Your task to perform on an android device: Open Yahoo.com Image 0: 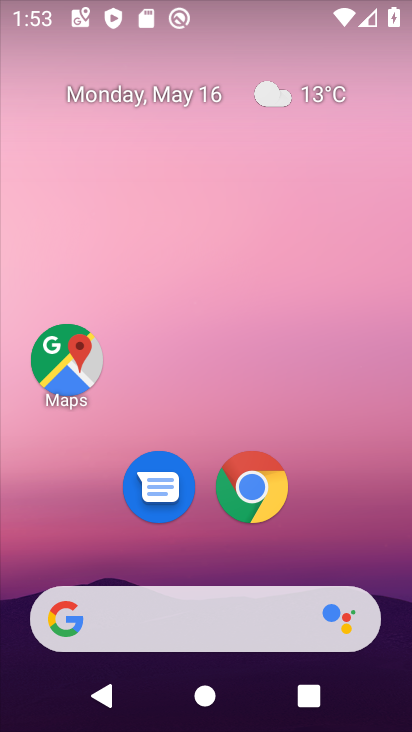
Step 0: drag from (311, 453) to (287, 19)
Your task to perform on an android device: Open Yahoo.com Image 1: 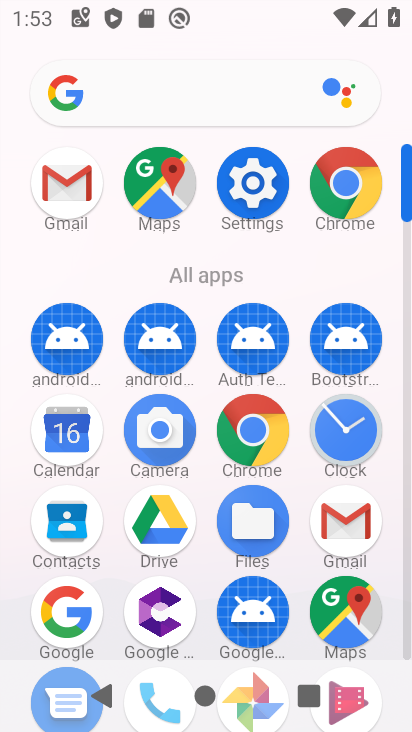
Step 1: click (250, 421)
Your task to perform on an android device: Open Yahoo.com Image 2: 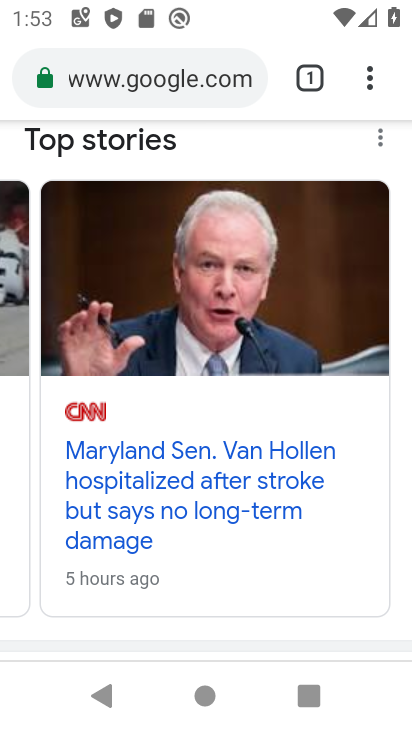
Step 2: click (163, 77)
Your task to perform on an android device: Open Yahoo.com Image 3: 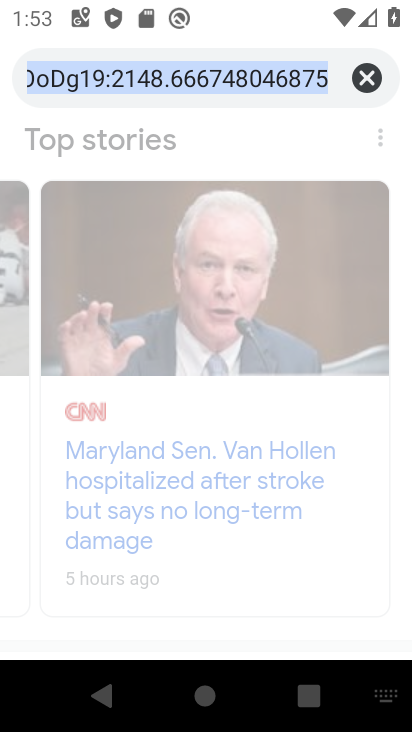
Step 3: click (367, 67)
Your task to perform on an android device: Open Yahoo.com Image 4: 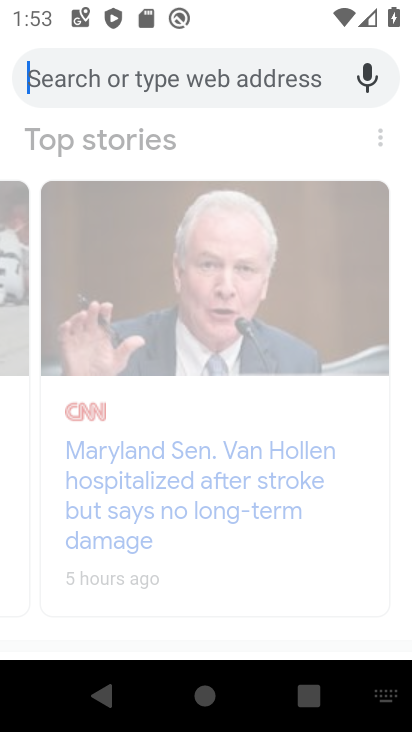
Step 4: type "Yahoo.com"
Your task to perform on an android device: Open Yahoo.com Image 5: 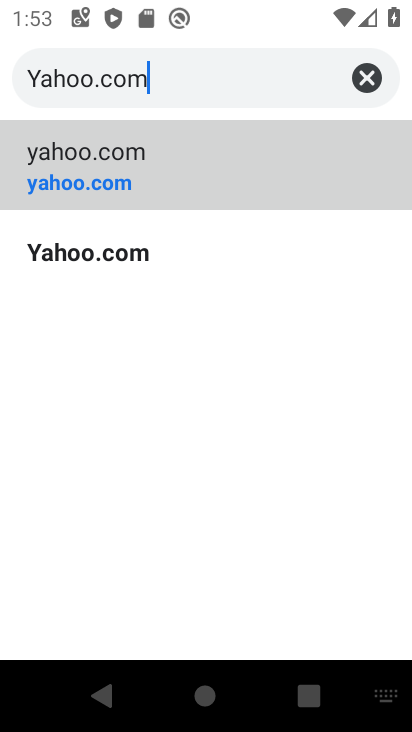
Step 5: type ""
Your task to perform on an android device: Open Yahoo.com Image 6: 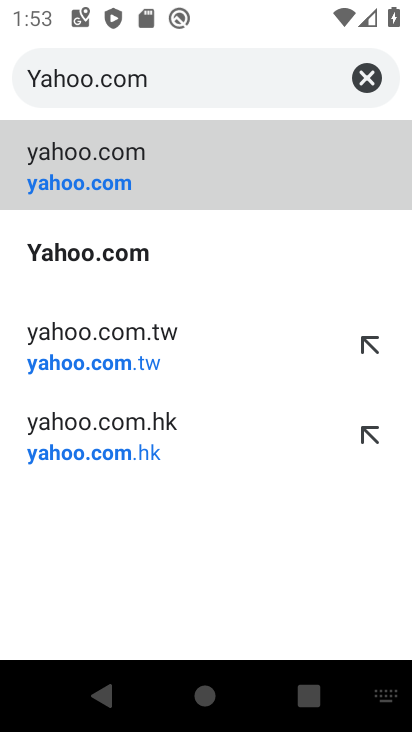
Step 6: click (194, 173)
Your task to perform on an android device: Open Yahoo.com Image 7: 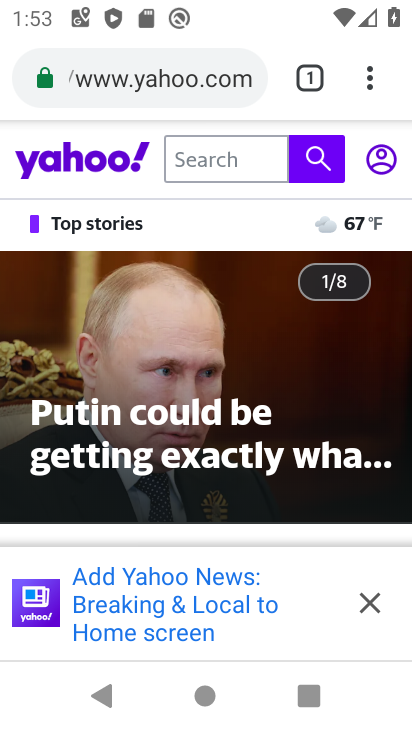
Step 7: task complete